Your task to perform on an android device: see tabs open on other devices in the chrome app Image 0: 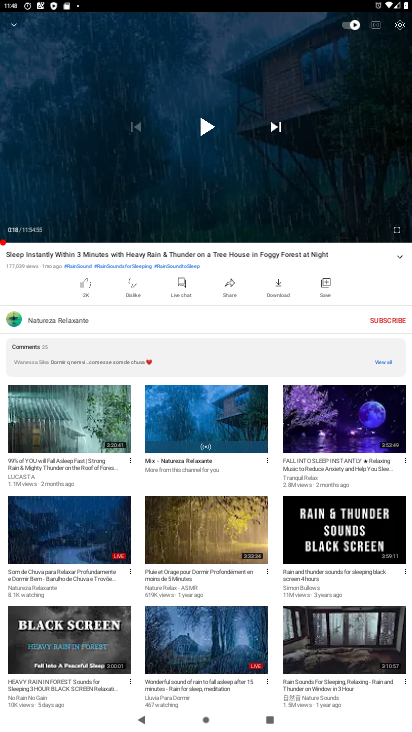
Step 0: press home button
Your task to perform on an android device: see tabs open on other devices in the chrome app Image 1: 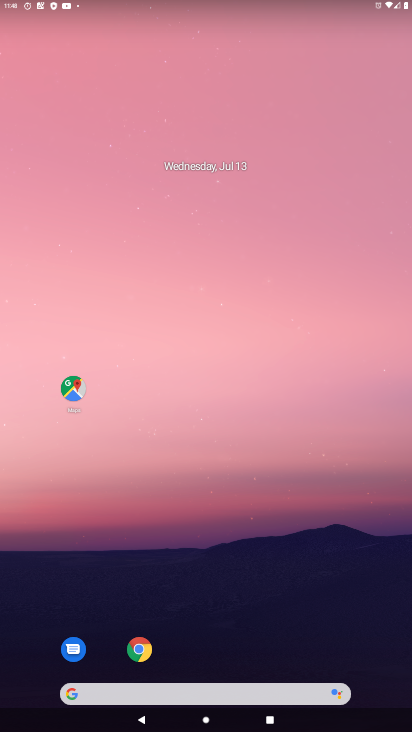
Step 1: click (139, 649)
Your task to perform on an android device: see tabs open on other devices in the chrome app Image 2: 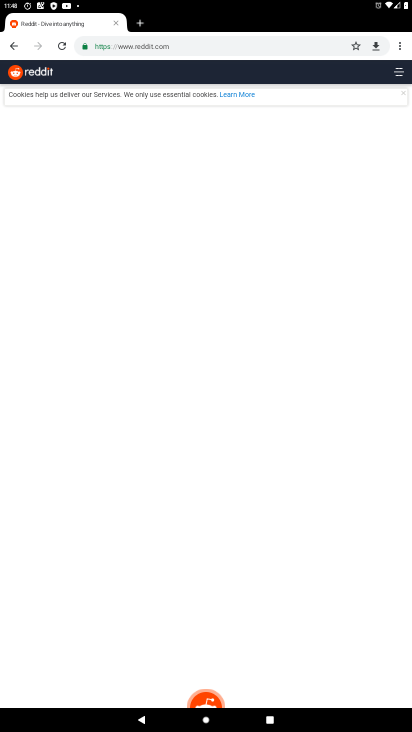
Step 2: click (402, 45)
Your task to perform on an android device: see tabs open on other devices in the chrome app Image 3: 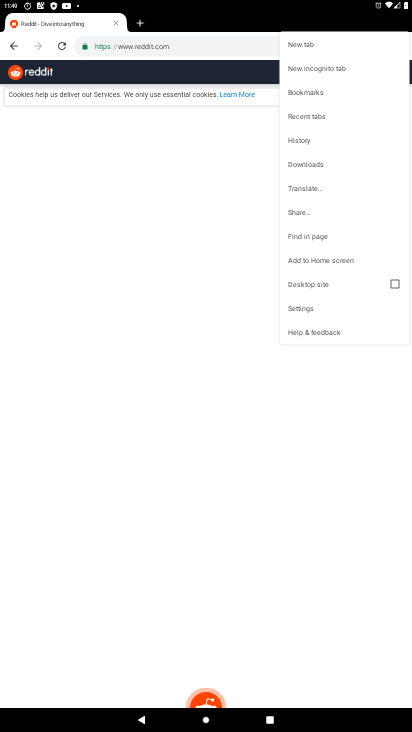
Step 3: click (320, 118)
Your task to perform on an android device: see tabs open on other devices in the chrome app Image 4: 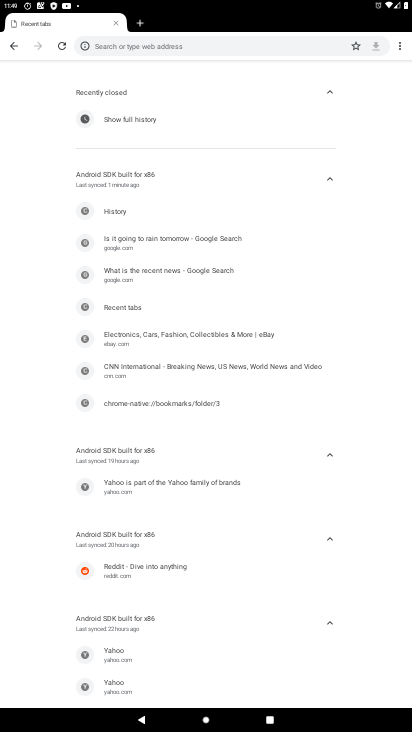
Step 4: task complete